Your task to perform on an android device: Go to notification settings Image 0: 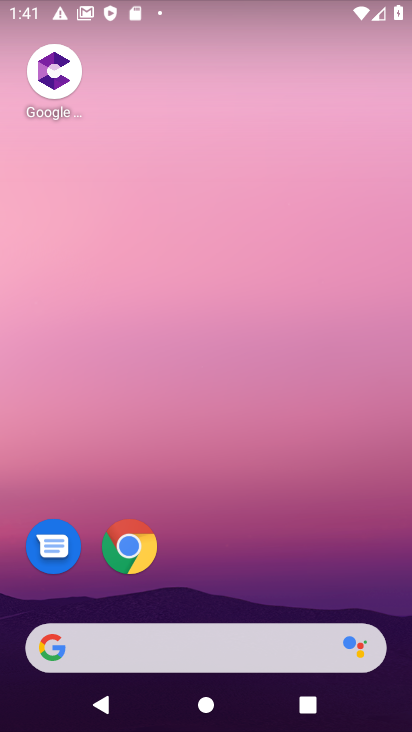
Step 0: drag from (264, 583) to (212, 57)
Your task to perform on an android device: Go to notification settings Image 1: 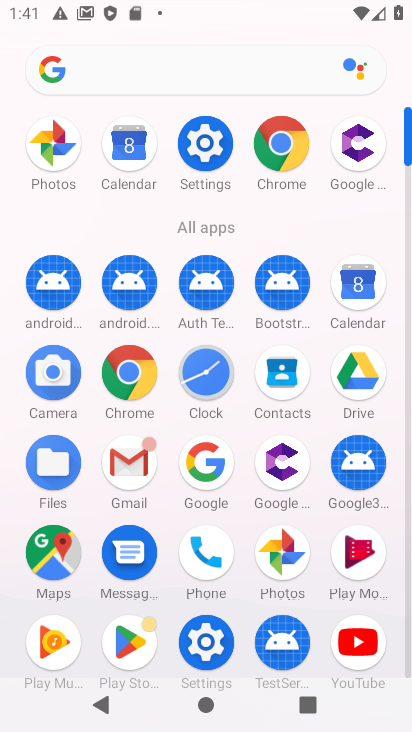
Step 1: click (208, 152)
Your task to perform on an android device: Go to notification settings Image 2: 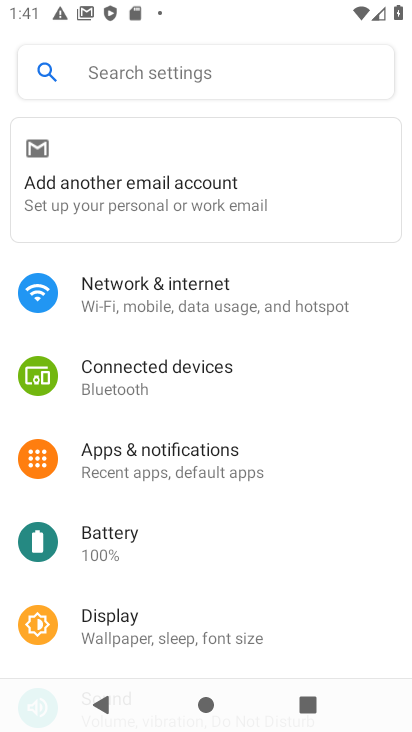
Step 2: click (226, 465)
Your task to perform on an android device: Go to notification settings Image 3: 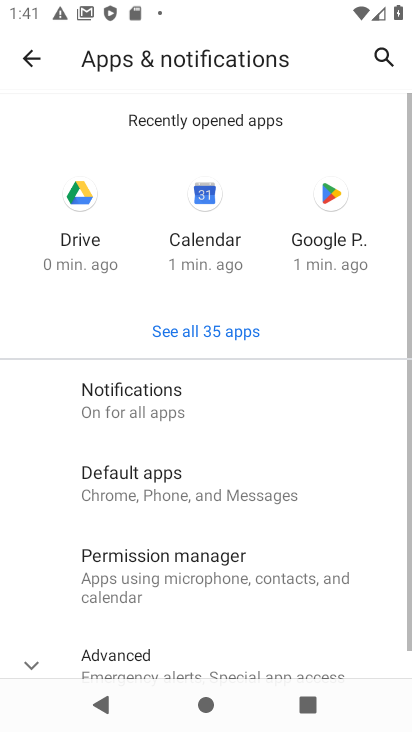
Step 3: click (273, 404)
Your task to perform on an android device: Go to notification settings Image 4: 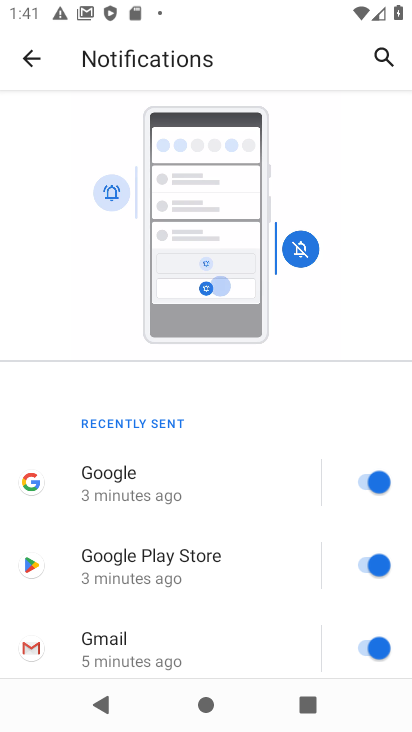
Step 4: task complete